Your task to perform on an android device: What is the recent news? Image 0: 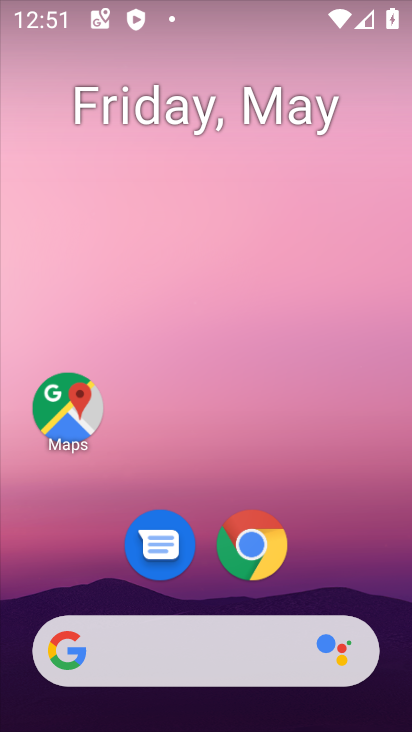
Step 0: click (216, 650)
Your task to perform on an android device: What is the recent news? Image 1: 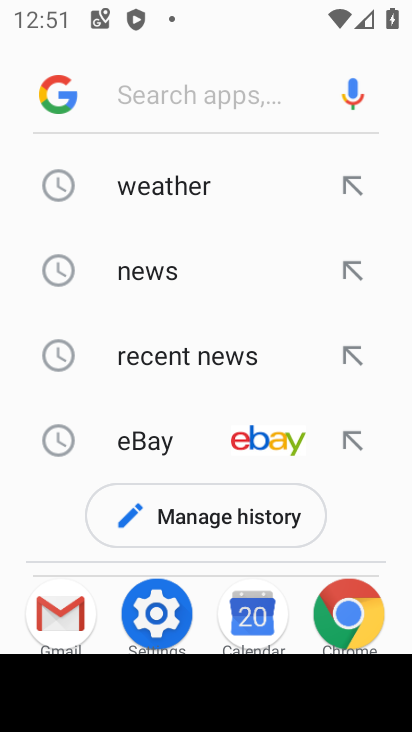
Step 1: click (184, 362)
Your task to perform on an android device: What is the recent news? Image 2: 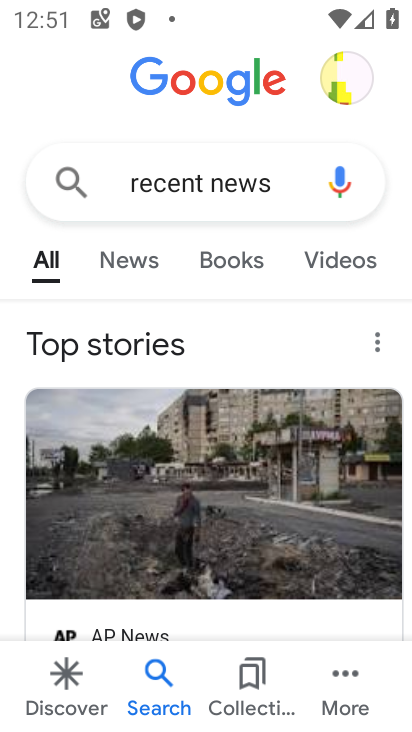
Step 2: task complete